Your task to perform on an android device: clear all cookies in the chrome app Image 0: 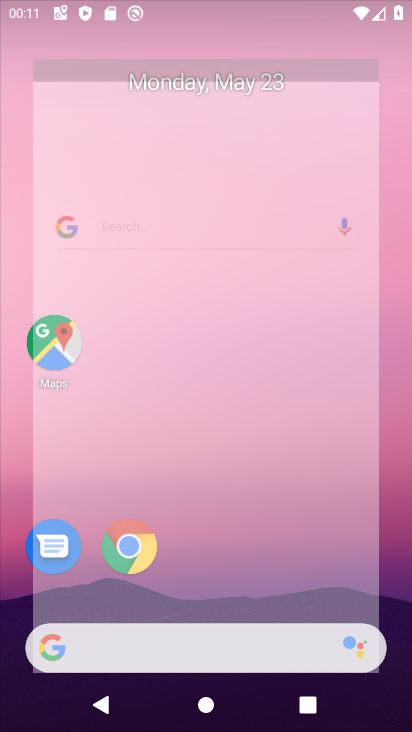
Step 0: drag from (188, 601) to (185, 52)
Your task to perform on an android device: clear all cookies in the chrome app Image 1: 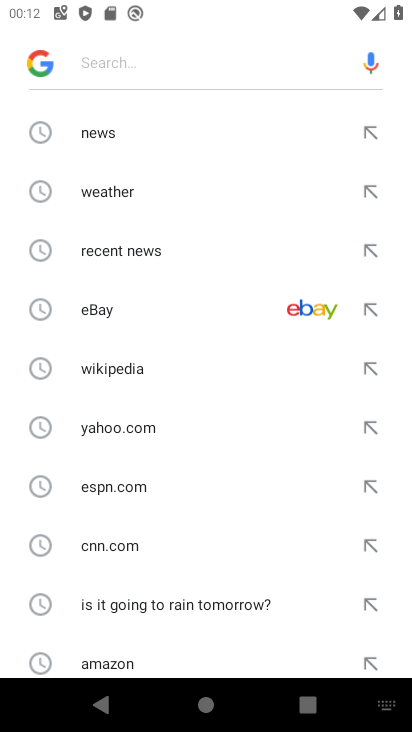
Step 1: drag from (222, 476) to (313, 142)
Your task to perform on an android device: clear all cookies in the chrome app Image 2: 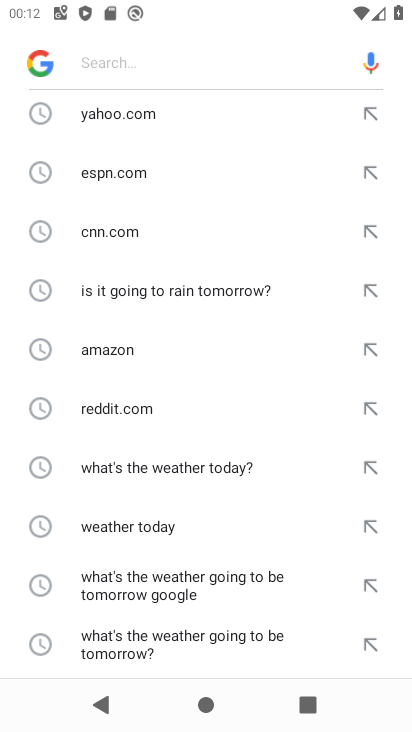
Step 2: drag from (265, 146) to (238, 630)
Your task to perform on an android device: clear all cookies in the chrome app Image 3: 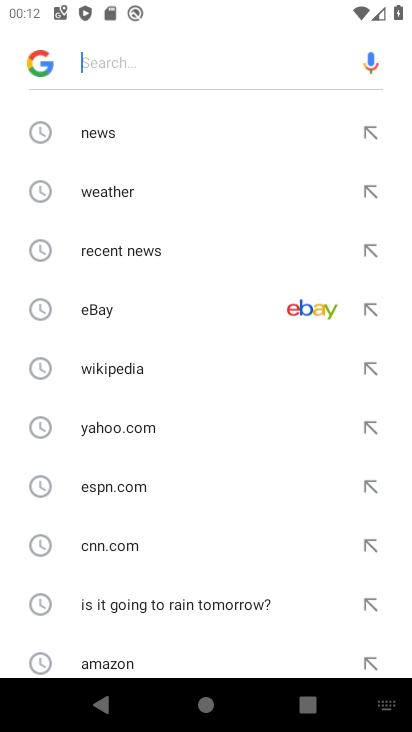
Step 3: drag from (179, 528) to (230, 233)
Your task to perform on an android device: clear all cookies in the chrome app Image 4: 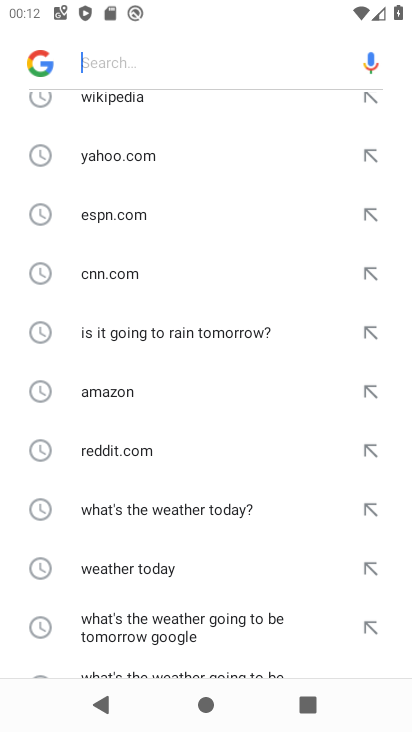
Step 4: press home button
Your task to perform on an android device: clear all cookies in the chrome app Image 5: 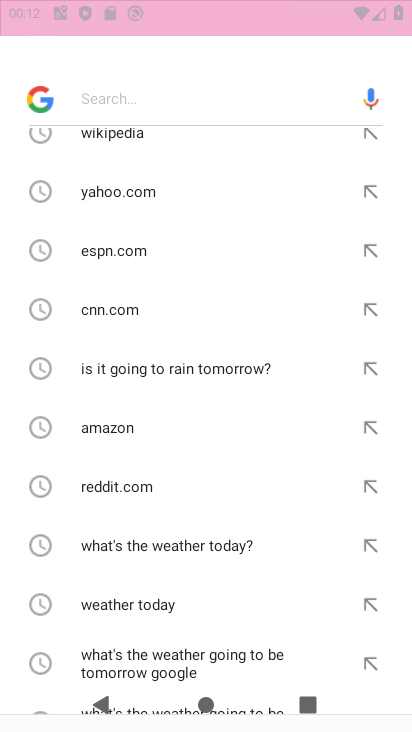
Step 5: drag from (241, 547) to (325, 32)
Your task to perform on an android device: clear all cookies in the chrome app Image 6: 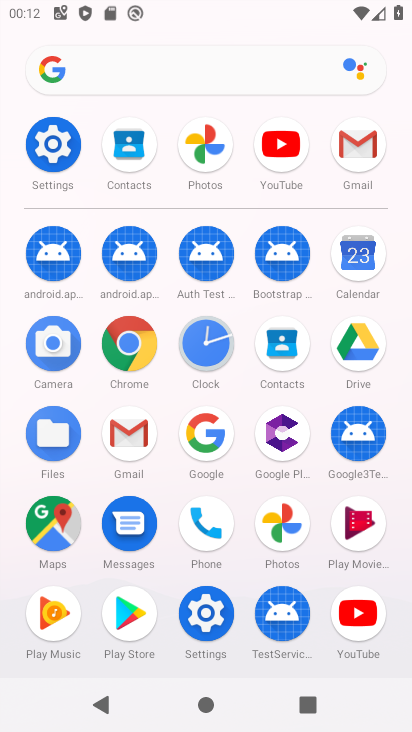
Step 6: click (139, 342)
Your task to perform on an android device: clear all cookies in the chrome app Image 7: 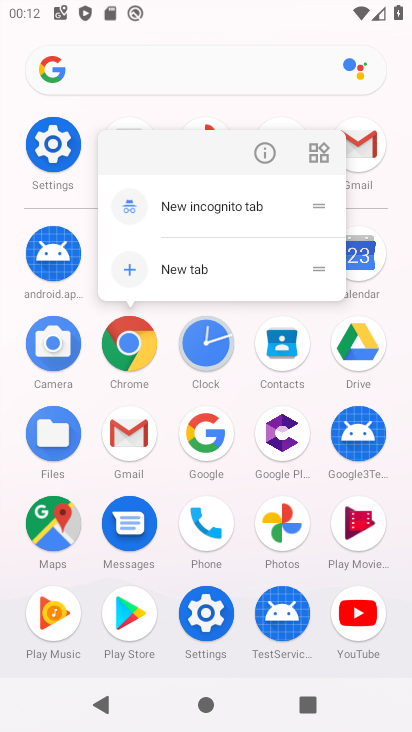
Step 7: click (258, 154)
Your task to perform on an android device: clear all cookies in the chrome app Image 8: 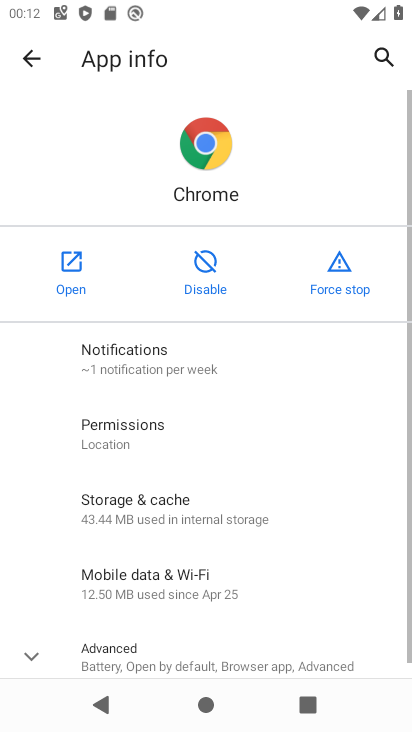
Step 8: click (68, 261)
Your task to perform on an android device: clear all cookies in the chrome app Image 9: 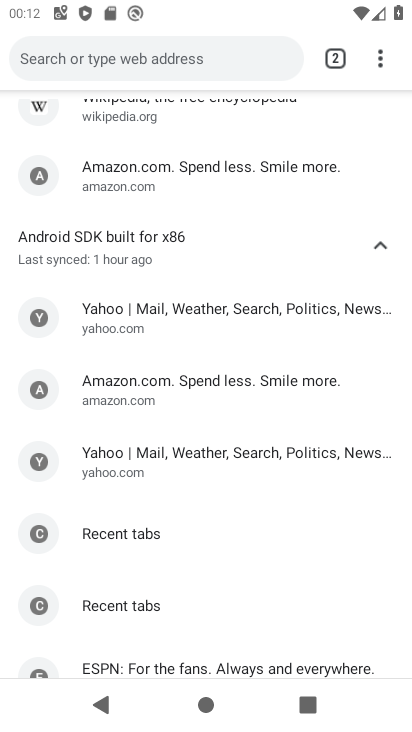
Step 9: click (383, 48)
Your task to perform on an android device: clear all cookies in the chrome app Image 10: 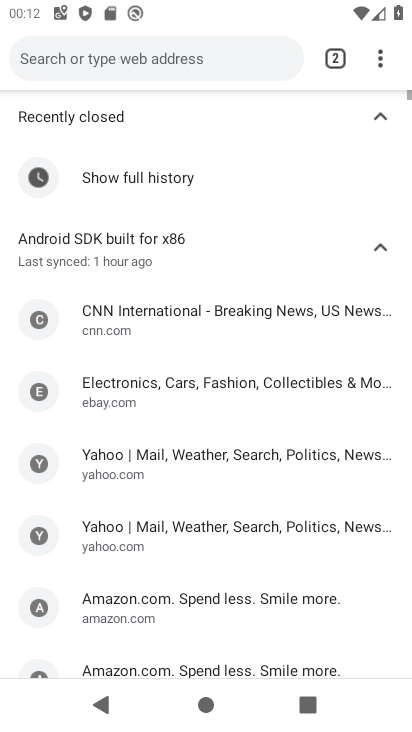
Step 10: click (381, 50)
Your task to perform on an android device: clear all cookies in the chrome app Image 11: 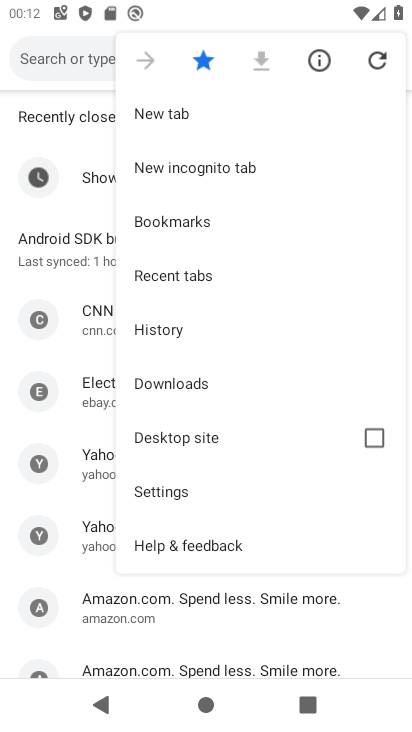
Step 11: drag from (222, 519) to (268, 127)
Your task to perform on an android device: clear all cookies in the chrome app Image 12: 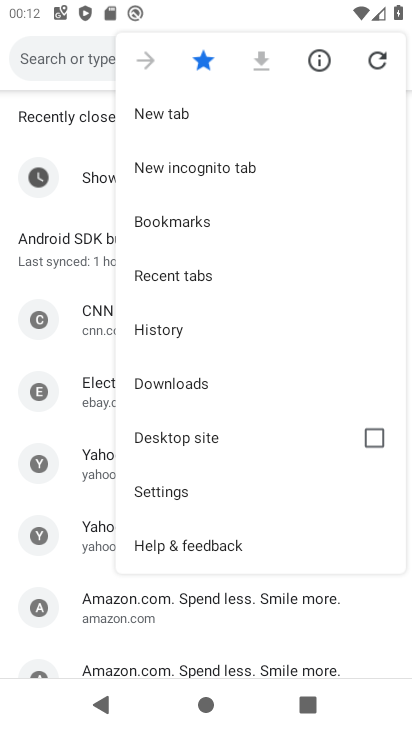
Step 12: click (171, 331)
Your task to perform on an android device: clear all cookies in the chrome app Image 13: 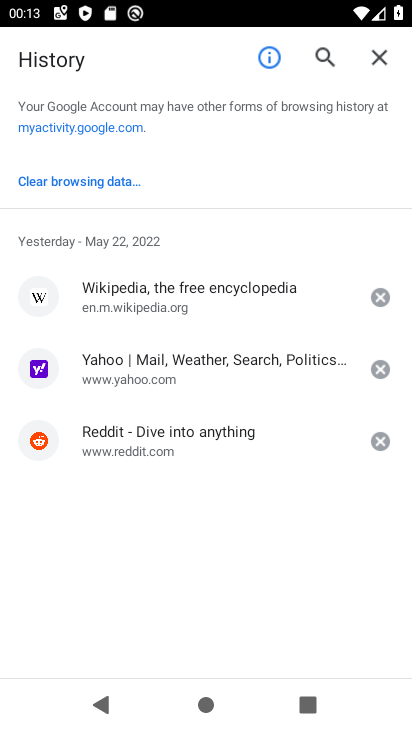
Step 13: click (66, 183)
Your task to perform on an android device: clear all cookies in the chrome app Image 14: 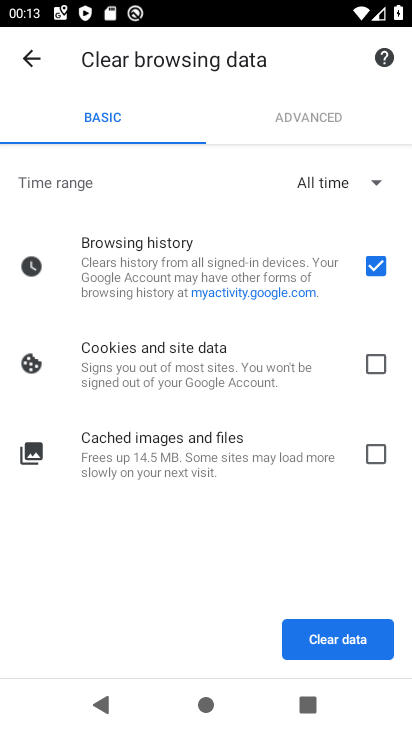
Step 14: click (372, 361)
Your task to perform on an android device: clear all cookies in the chrome app Image 15: 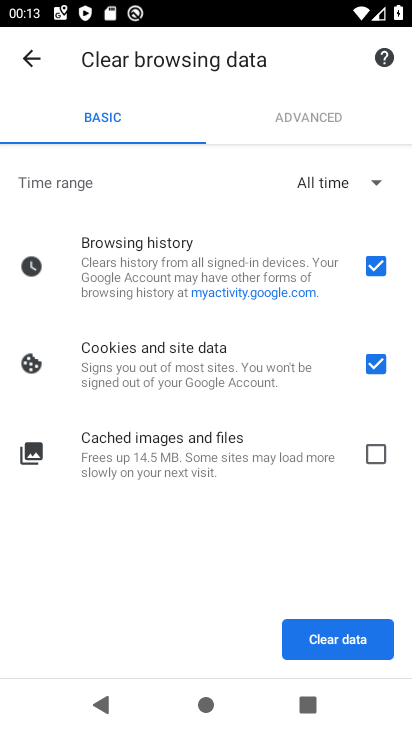
Step 15: click (373, 264)
Your task to perform on an android device: clear all cookies in the chrome app Image 16: 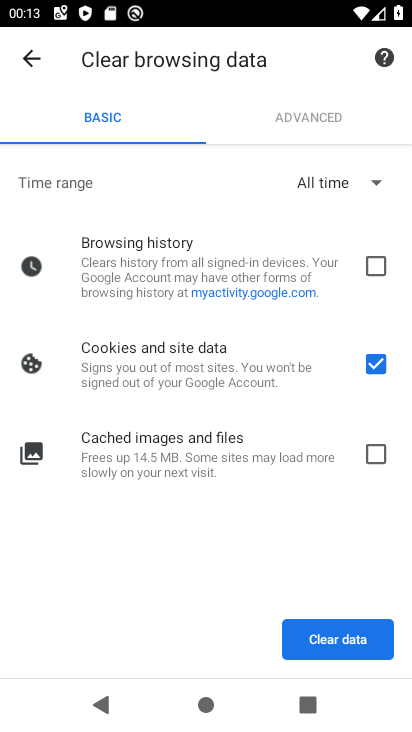
Step 16: click (312, 636)
Your task to perform on an android device: clear all cookies in the chrome app Image 17: 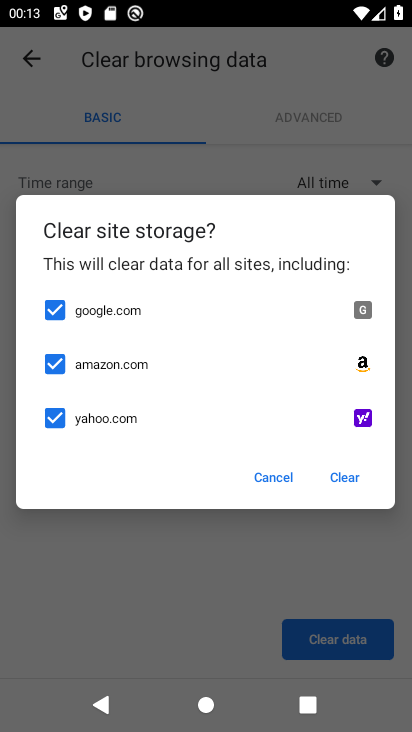
Step 17: click (333, 479)
Your task to perform on an android device: clear all cookies in the chrome app Image 18: 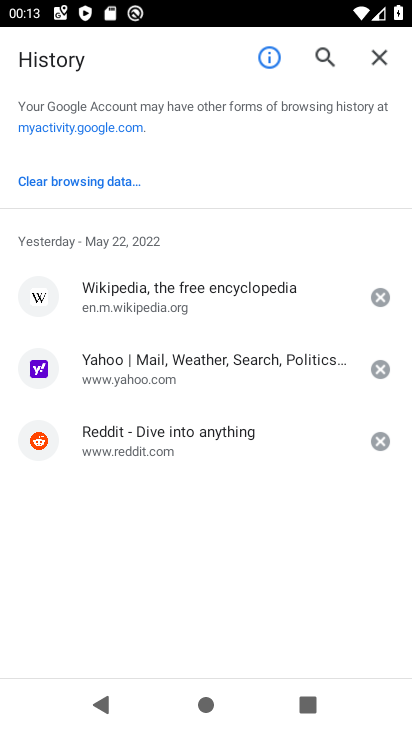
Step 18: task complete